Your task to perform on an android device: Search for Mexican restaurants on Maps Image 0: 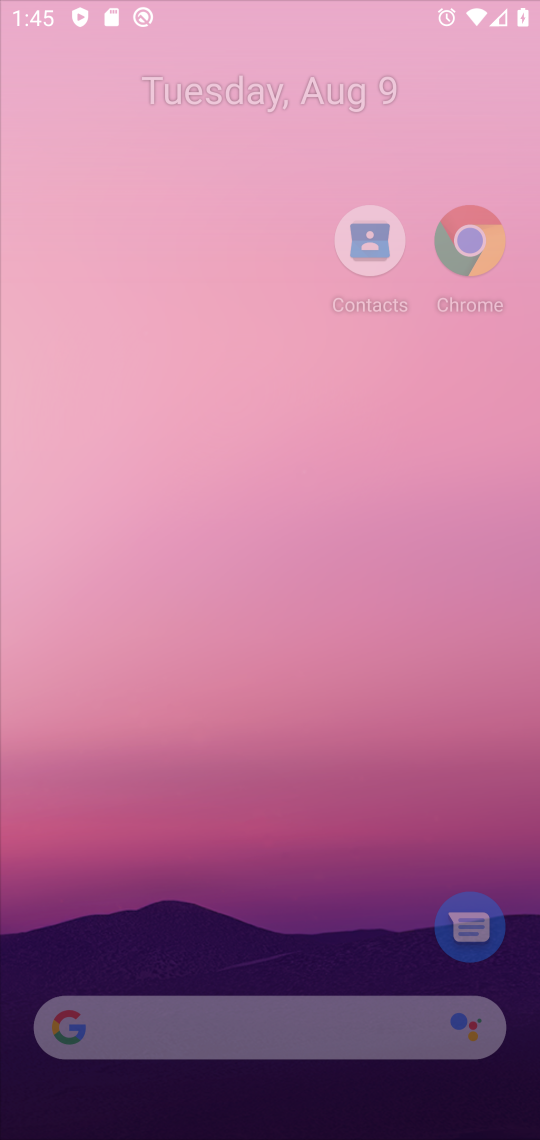
Step 0: press home button
Your task to perform on an android device: Search for Mexican restaurants on Maps Image 1: 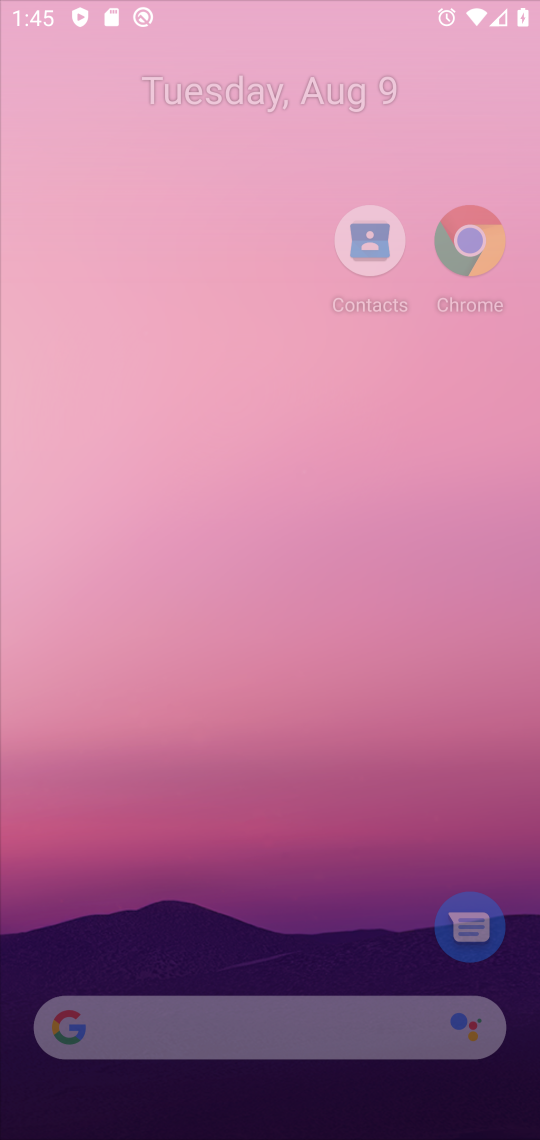
Step 1: click (262, 239)
Your task to perform on an android device: Search for Mexican restaurants on Maps Image 2: 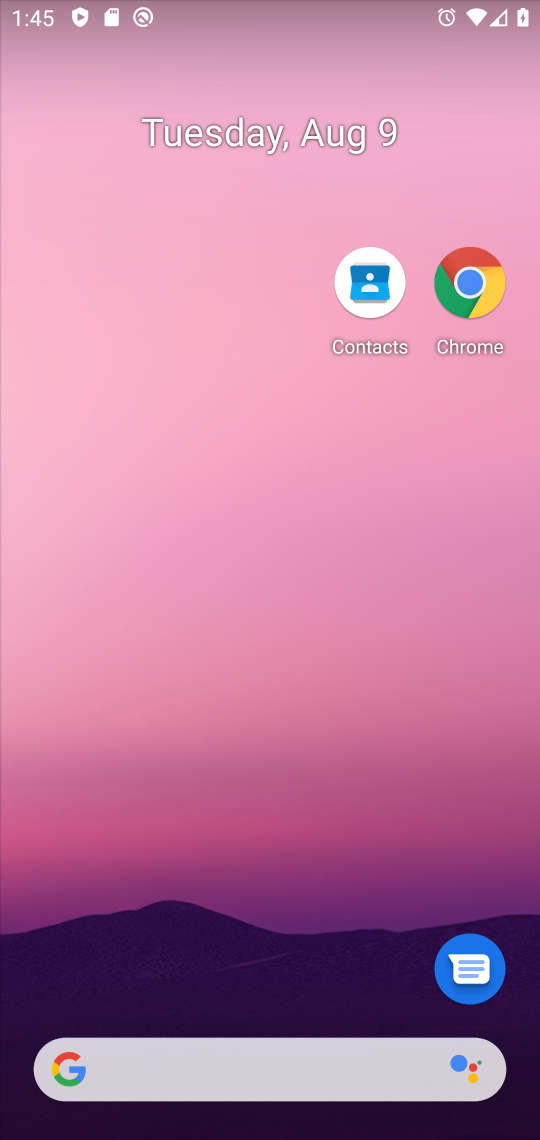
Step 2: drag from (307, 812) to (340, 298)
Your task to perform on an android device: Search for Mexican restaurants on Maps Image 3: 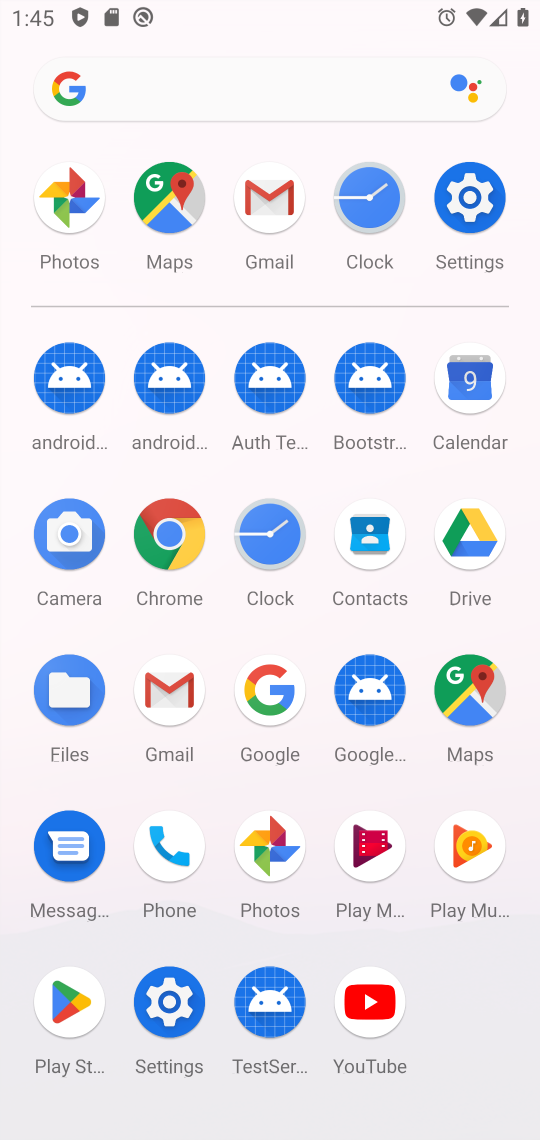
Step 3: drag from (221, 930) to (321, 253)
Your task to perform on an android device: Search for Mexican restaurants on Maps Image 4: 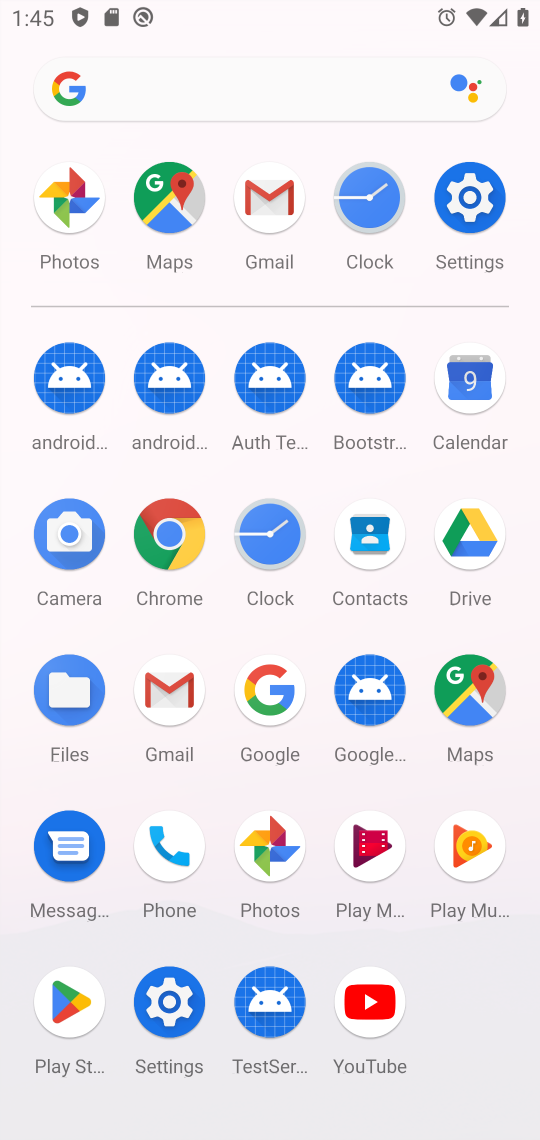
Step 4: click (462, 686)
Your task to perform on an android device: Search for Mexican restaurants on Maps Image 5: 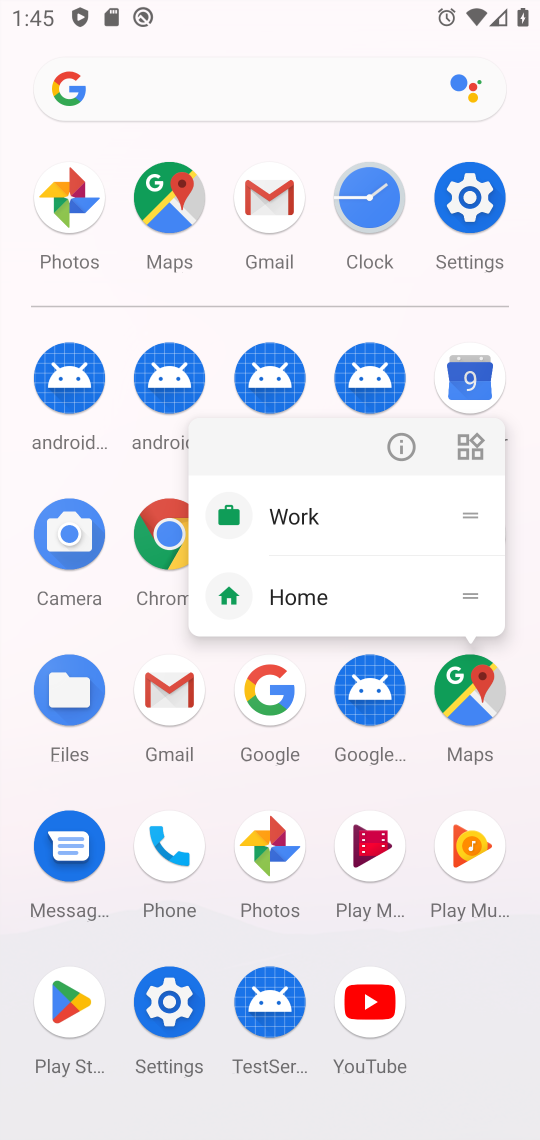
Step 5: click (400, 449)
Your task to perform on an android device: Search for Mexican restaurants on Maps Image 6: 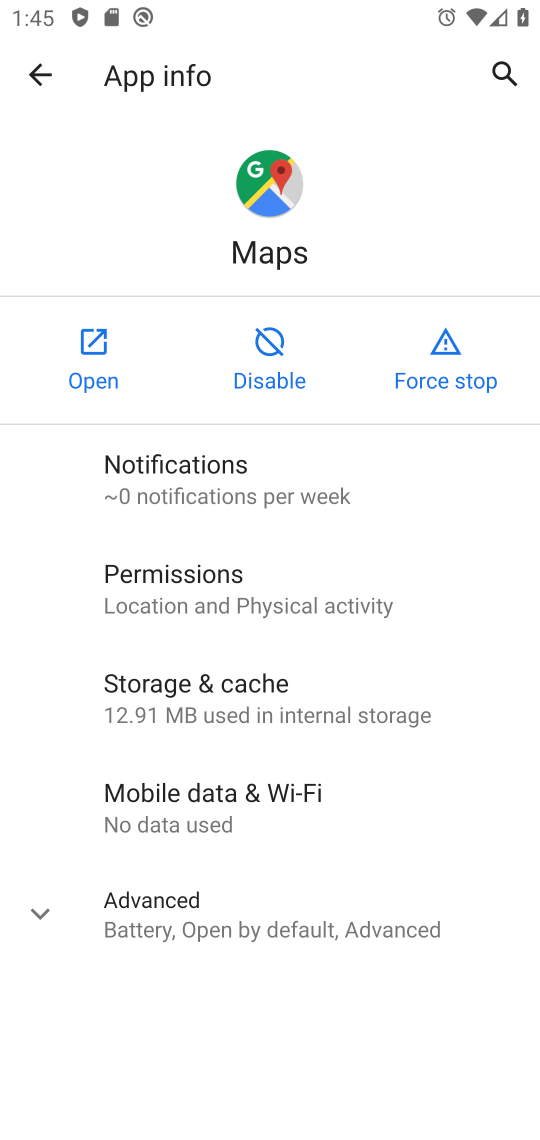
Step 6: click (86, 318)
Your task to perform on an android device: Search for Mexican restaurants on Maps Image 7: 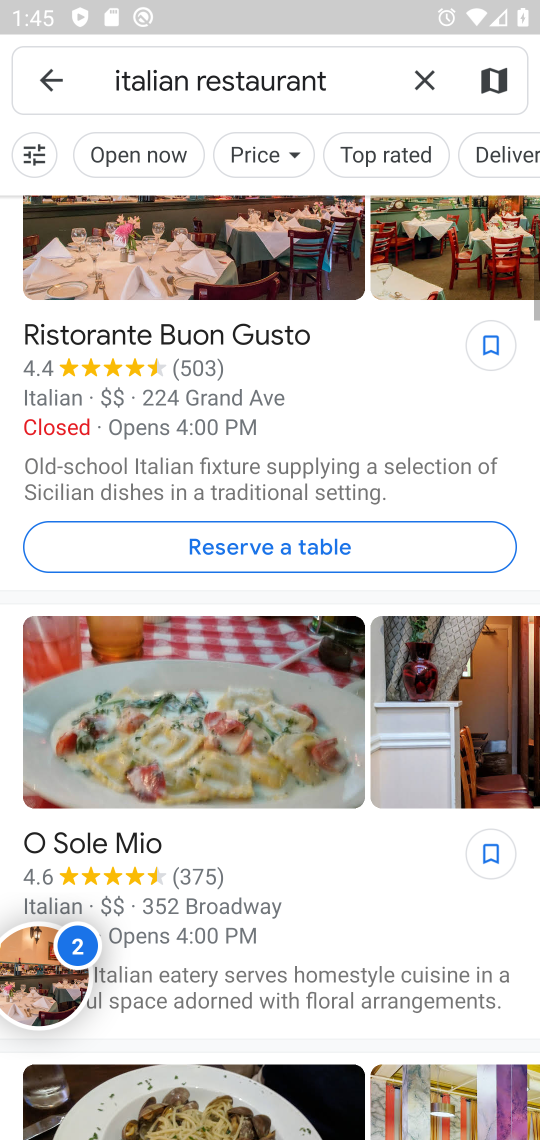
Step 7: drag from (328, 909) to (359, 512)
Your task to perform on an android device: Search for Mexican restaurants on Maps Image 8: 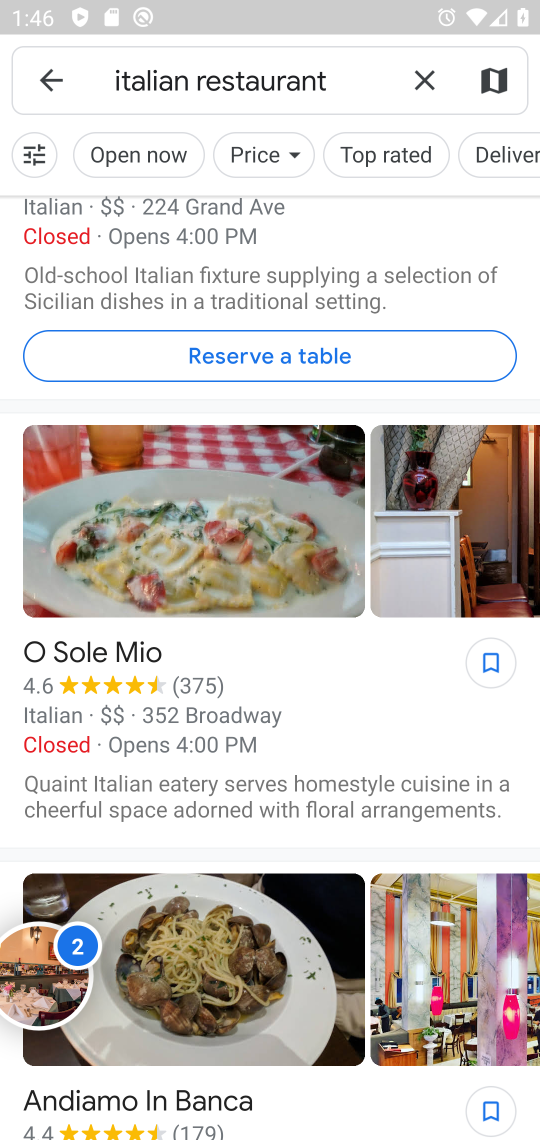
Step 8: drag from (251, 728) to (302, 306)
Your task to perform on an android device: Search for Mexican restaurants on Maps Image 9: 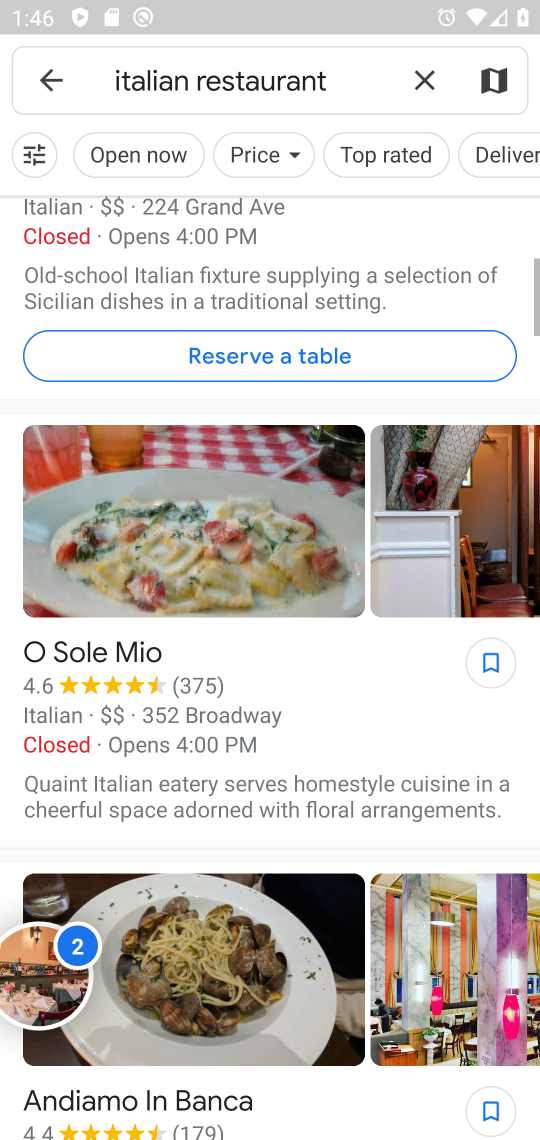
Step 9: drag from (316, 704) to (427, 259)
Your task to perform on an android device: Search for Mexican restaurants on Maps Image 10: 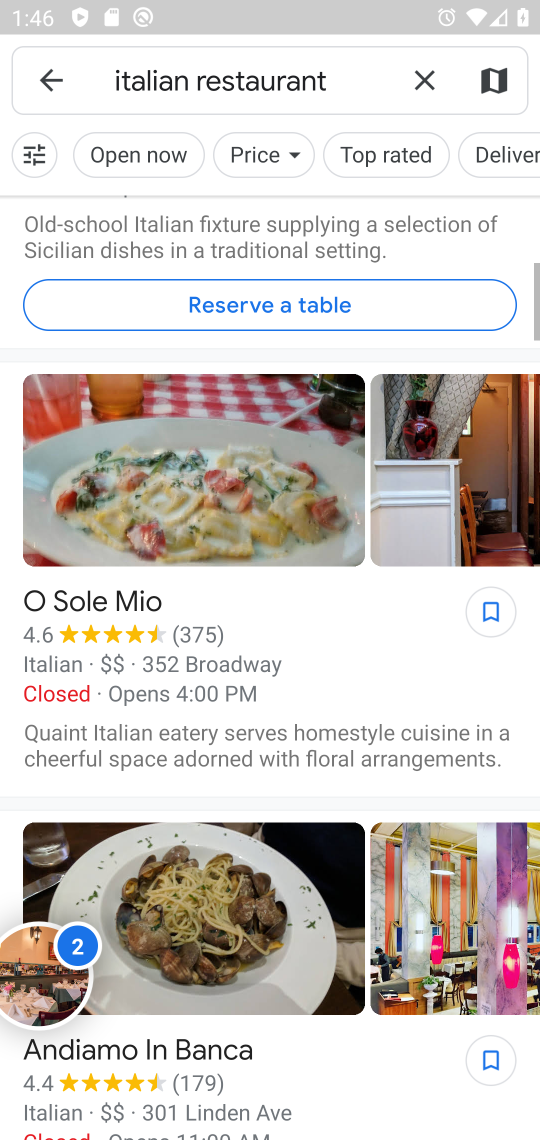
Step 10: drag from (396, 208) to (387, 1044)
Your task to perform on an android device: Search for Mexican restaurants on Maps Image 11: 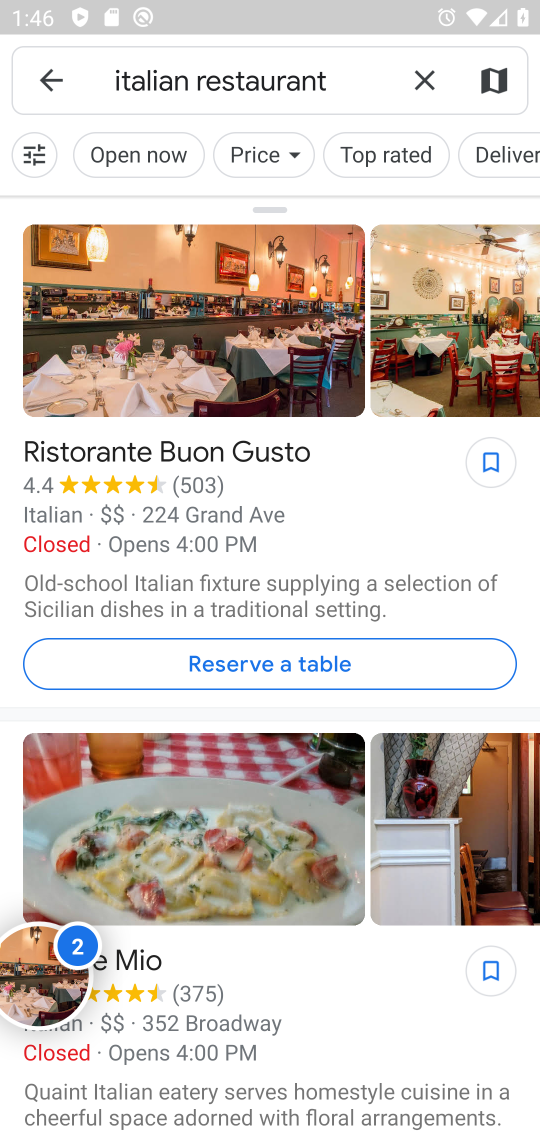
Step 11: drag from (310, 547) to (408, 1138)
Your task to perform on an android device: Search for Mexican restaurants on Maps Image 12: 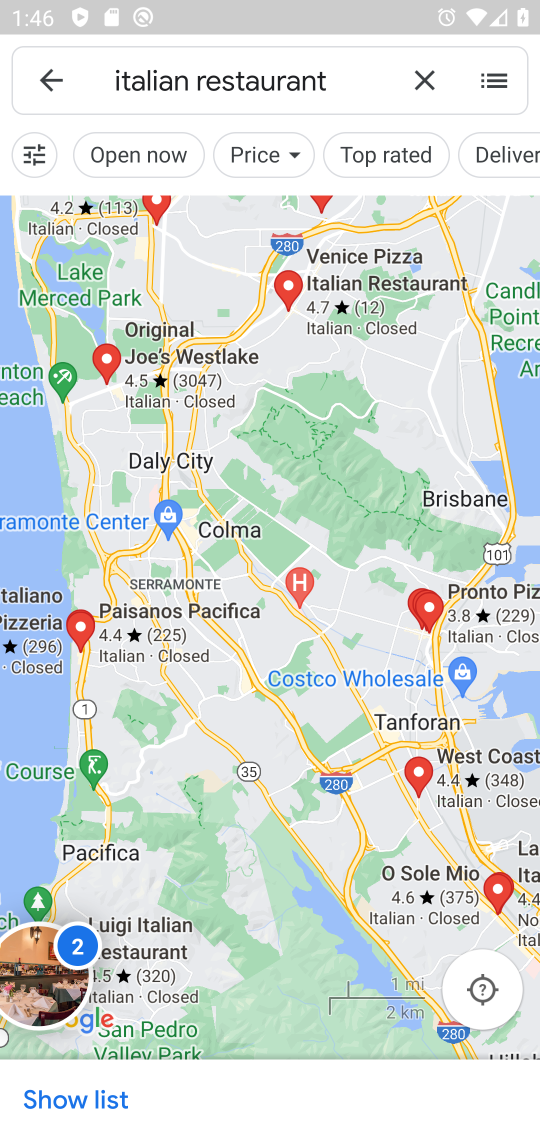
Step 12: click (411, 80)
Your task to perform on an android device: Search for Mexican restaurants on Maps Image 13: 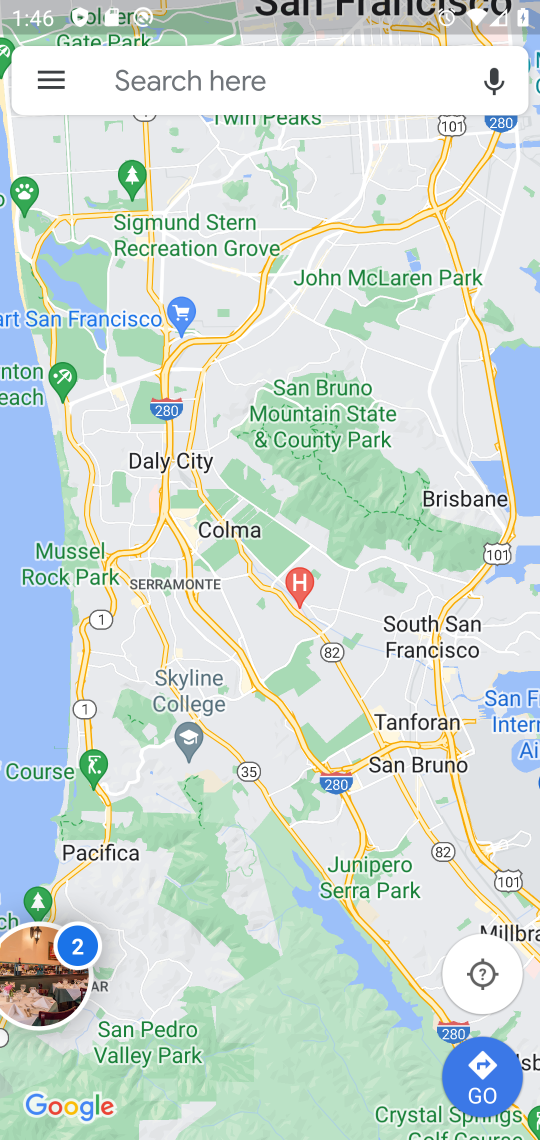
Step 13: click (279, 69)
Your task to perform on an android device: Search for Mexican restaurants on Maps Image 14: 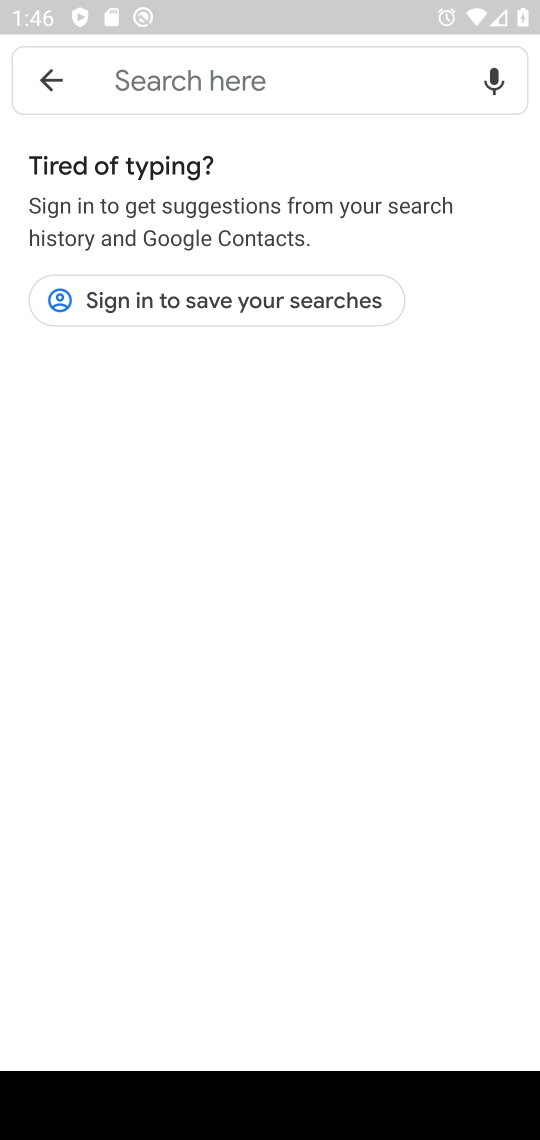
Step 14: type "Mexican restaurants"
Your task to perform on an android device: Search for Mexican restaurants on Maps Image 15: 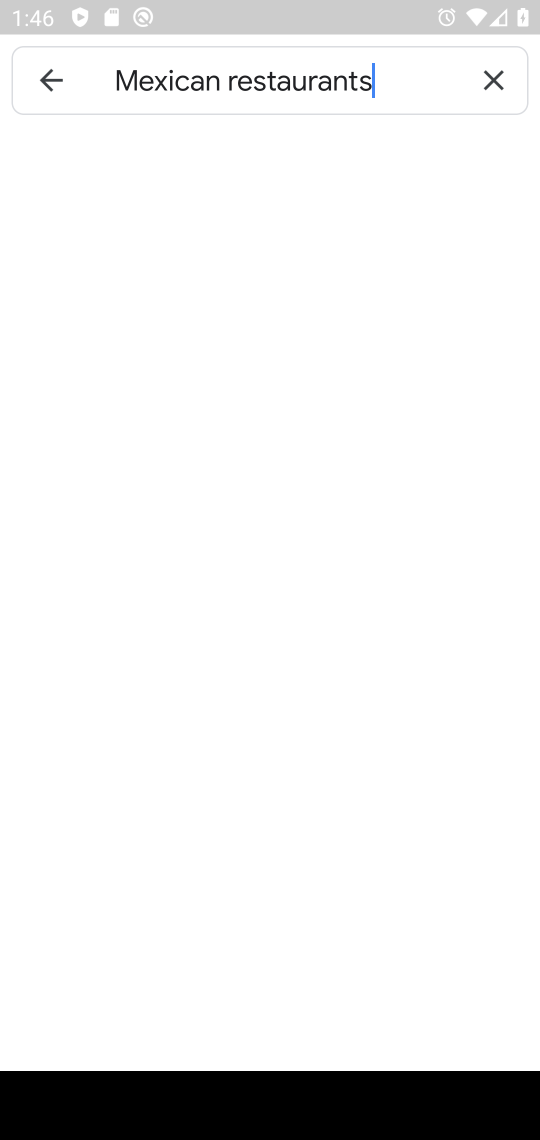
Step 15: type ""
Your task to perform on an android device: Search for Mexican restaurants on Maps Image 16: 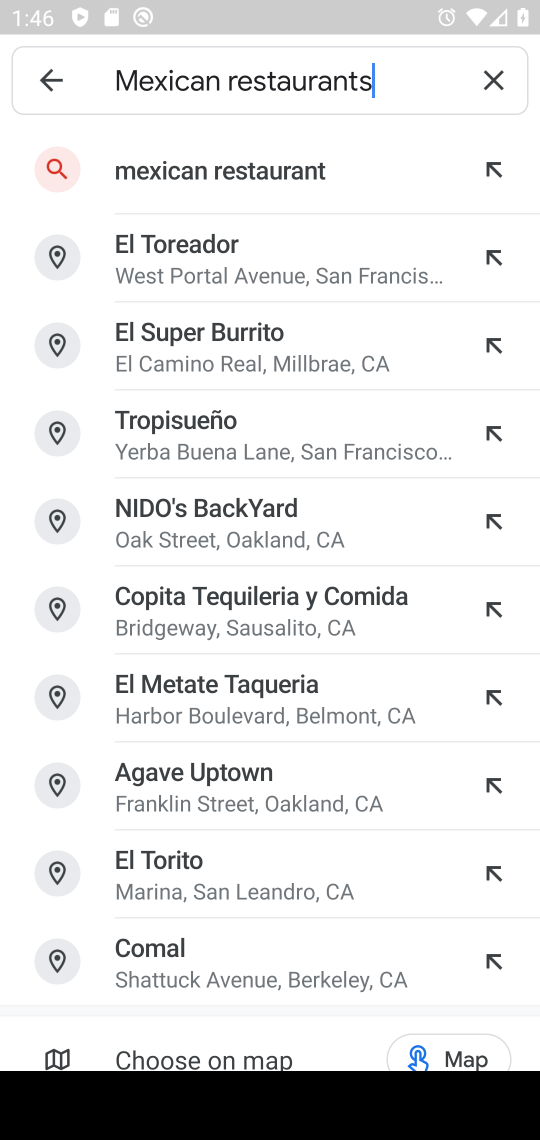
Step 16: click (158, 206)
Your task to perform on an android device: Search for Mexican restaurants on Maps Image 17: 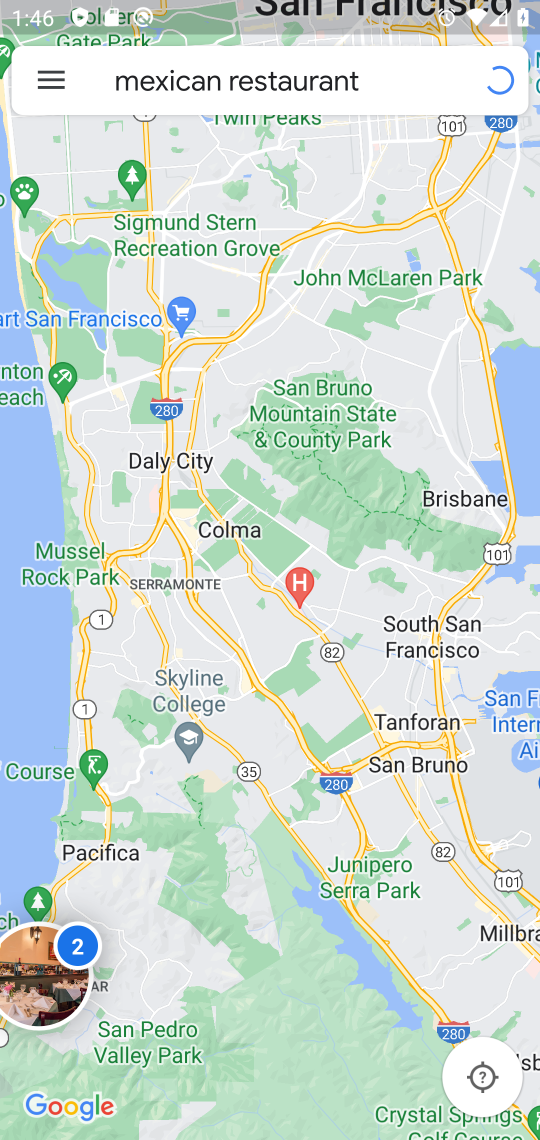
Step 17: task complete